Your task to perform on an android device: Open CNN.com Image 0: 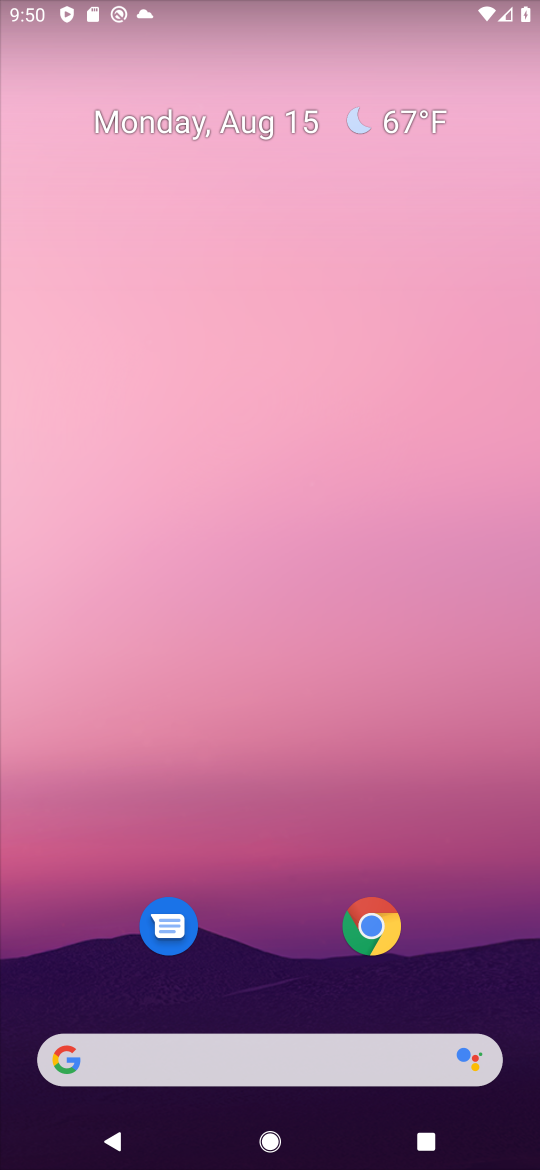
Step 0: press home button
Your task to perform on an android device: Open CNN.com Image 1: 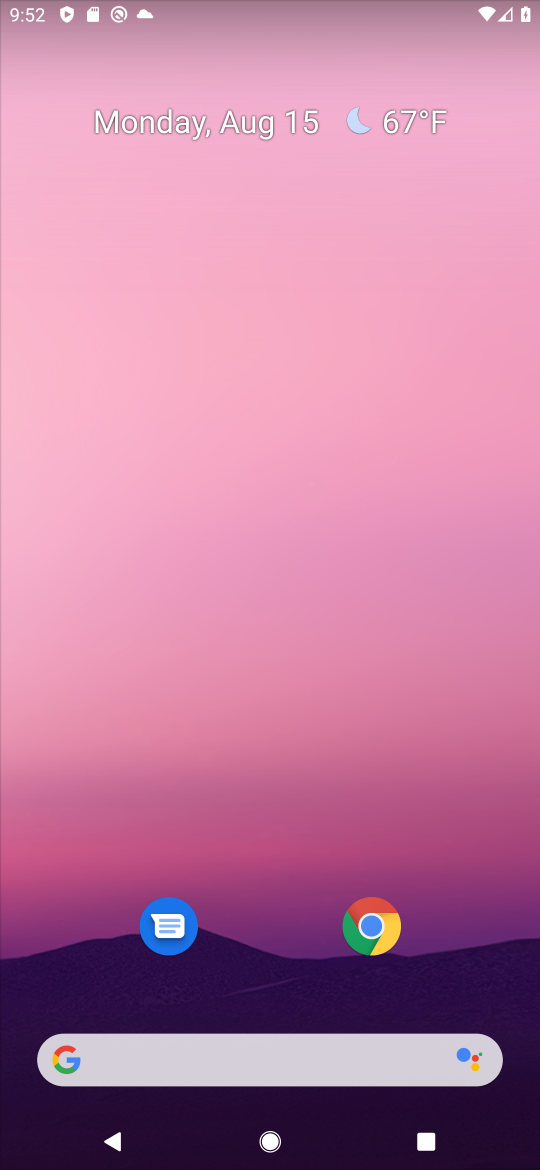
Step 1: drag from (249, 984) to (152, 352)
Your task to perform on an android device: Open CNN.com Image 2: 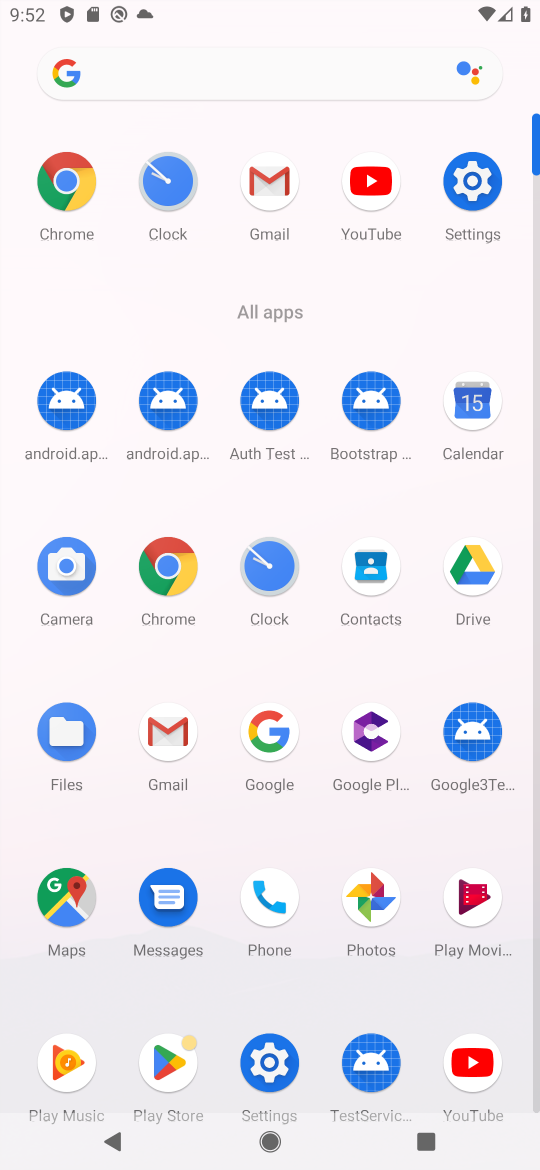
Step 2: click (43, 218)
Your task to perform on an android device: Open CNN.com Image 3: 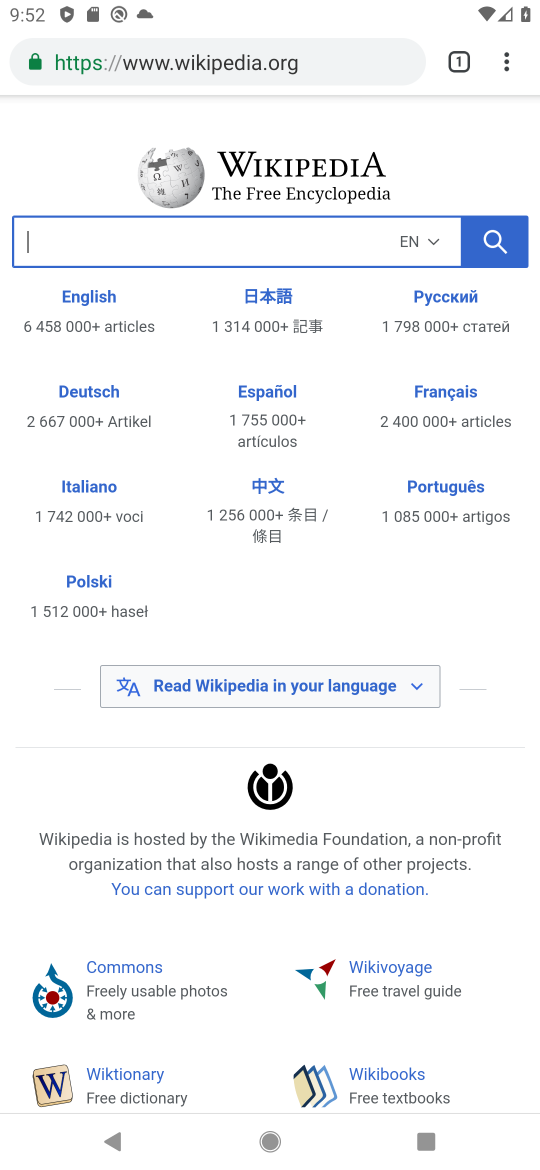
Step 3: click (145, 63)
Your task to perform on an android device: Open CNN.com Image 4: 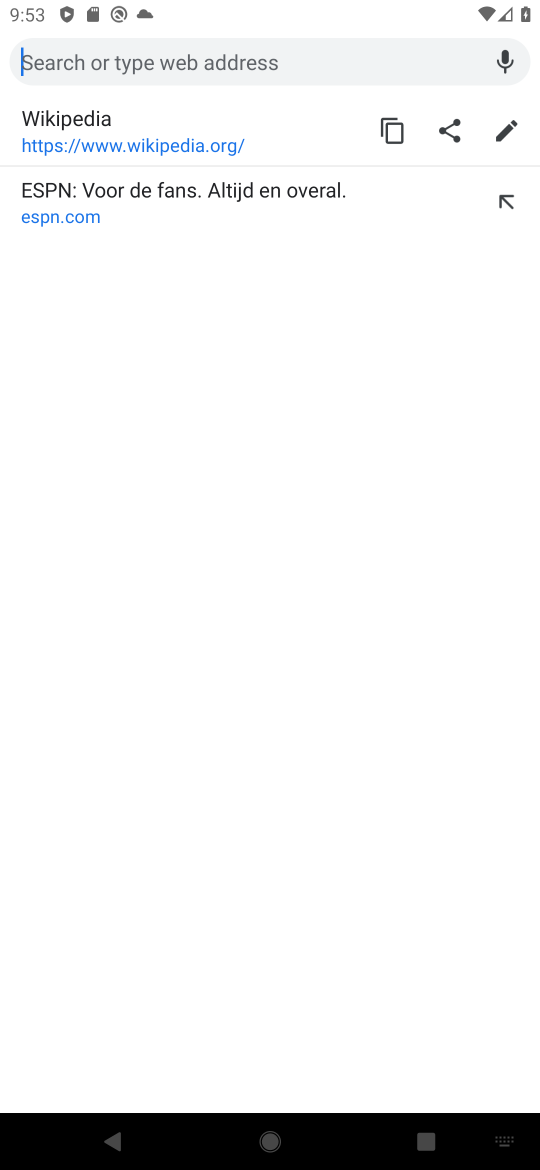
Step 4: type " CNN.com"
Your task to perform on an android device: Open CNN.com Image 5: 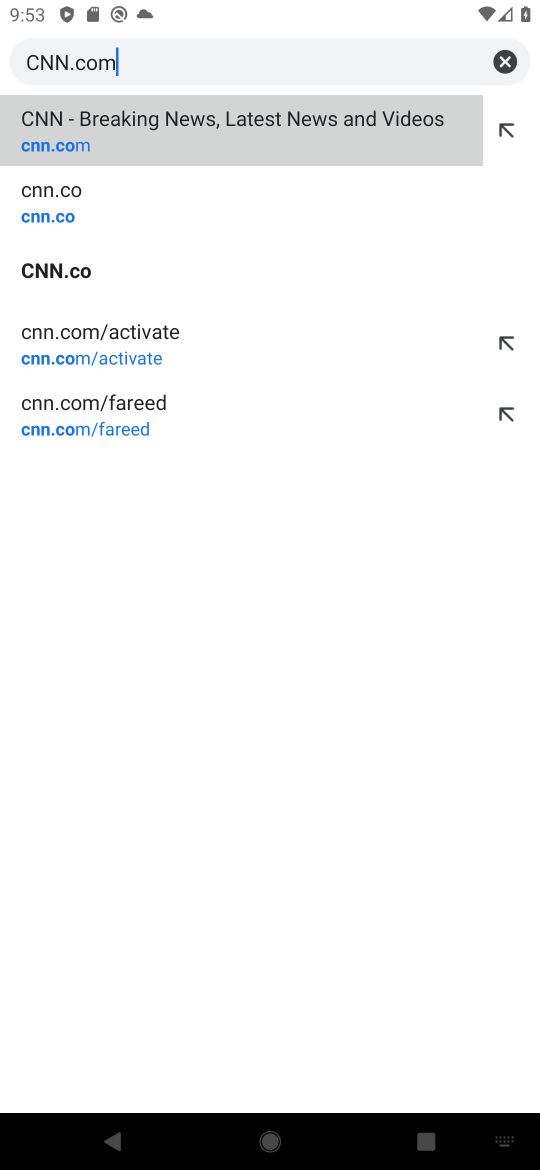
Step 5: type ""
Your task to perform on an android device: Open CNN.com Image 6: 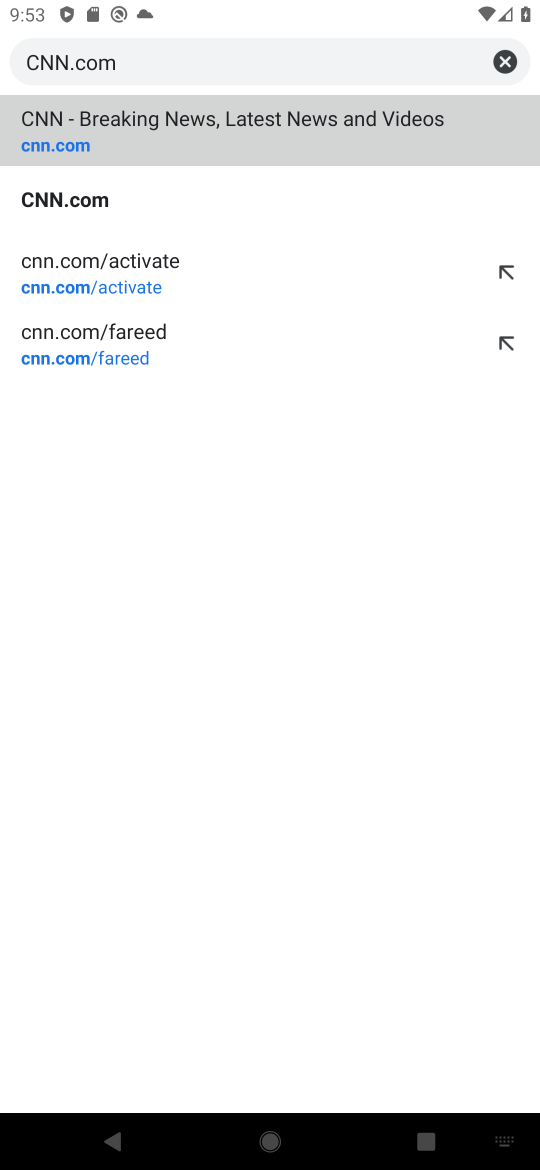
Step 6: click (49, 115)
Your task to perform on an android device: Open CNN.com Image 7: 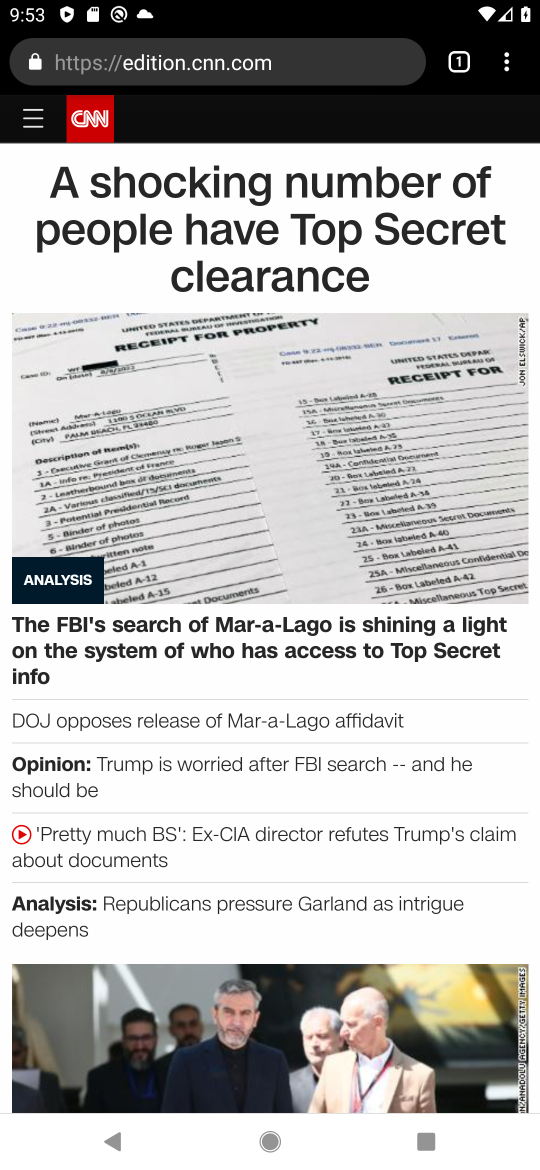
Step 7: task complete